Your task to perform on an android device: set an alarm Image 0: 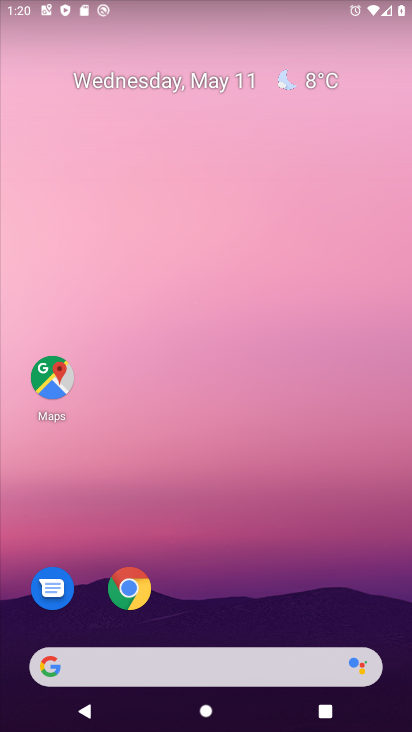
Step 0: drag from (321, 624) to (364, 20)
Your task to perform on an android device: set an alarm Image 1: 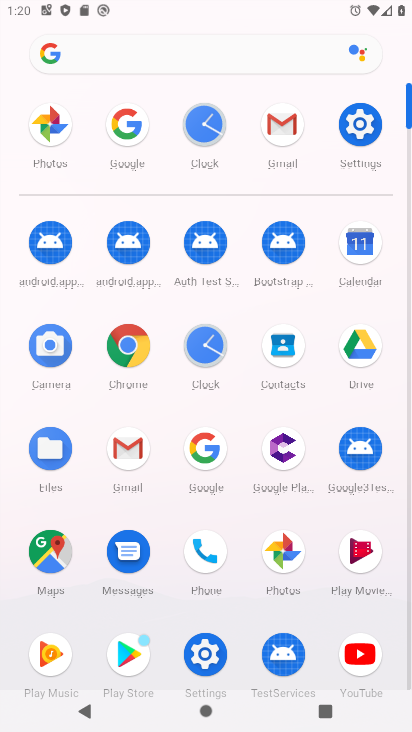
Step 1: click (209, 126)
Your task to perform on an android device: set an alarm Image 2: 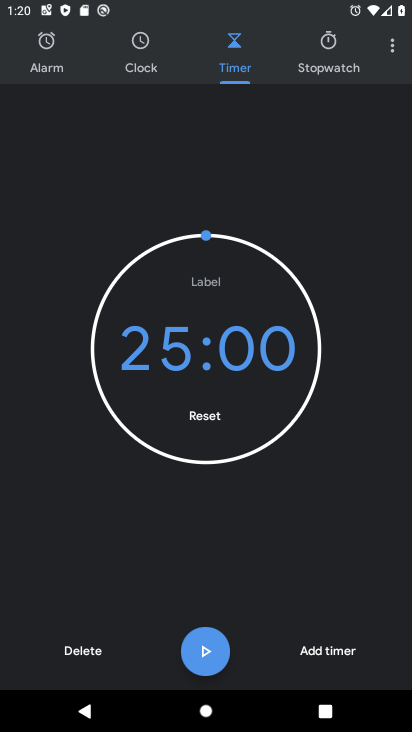
Step 2: click (54, 59)
Your task to perform on an android device: set an alarm Image 3: 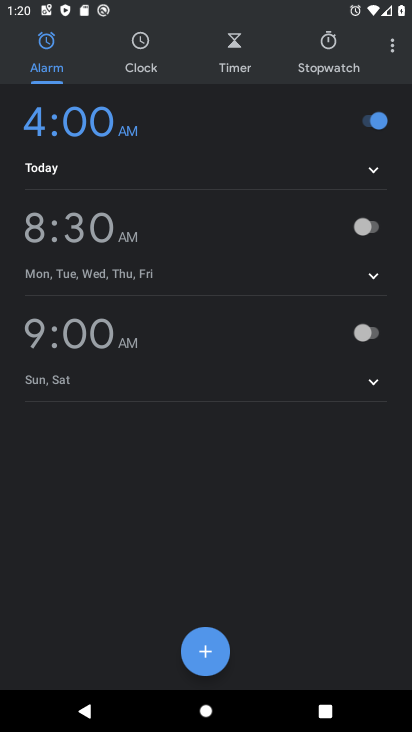
Step 3: click (211, 653)
Your task to perform on an android device: set an alarm Image 4: 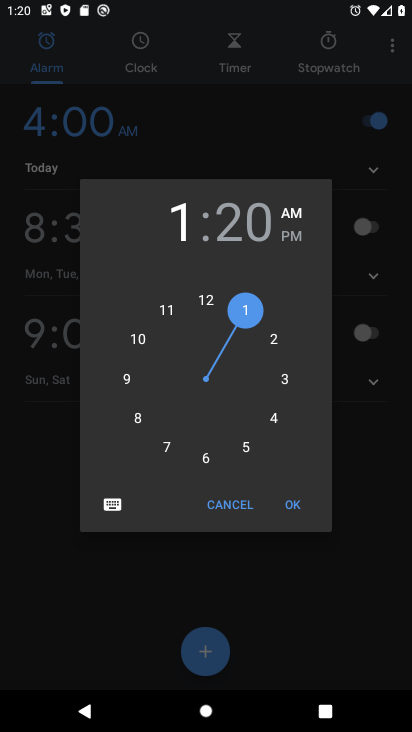
Step 4: click (246, 449)
Your task to perform on an android device: set an alarm Image 5: 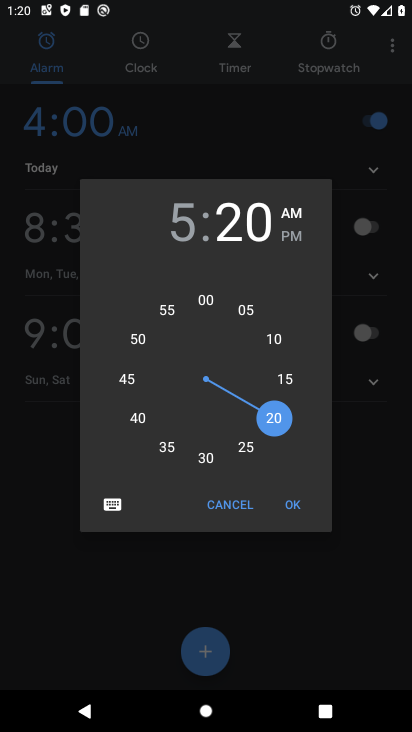
Step 5: click (201, 304)
Your task to perform on an android device: set an alarm Image 6: 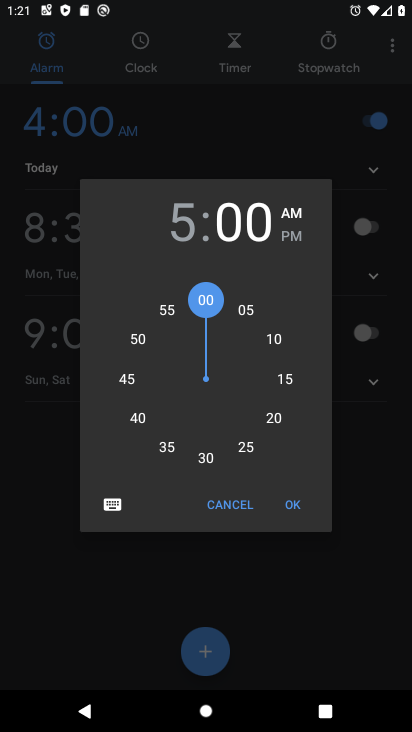
Step 6: click (307, 503)
Your task to perform on an android device: set an alarm Image 7: 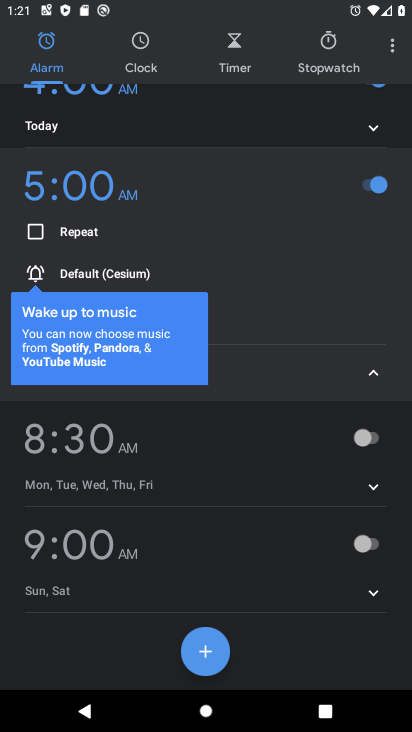
Step 7: task complete